Your task to perform on an android device: turn on airplane mode Image 0: 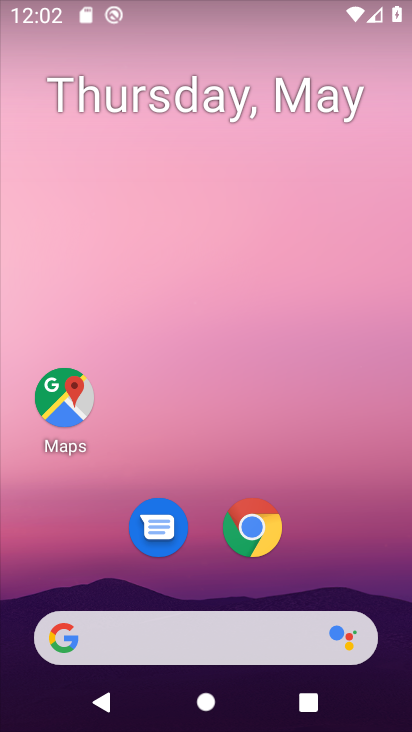
Step 0: drag from (355, 2) to (364, 514)
Your task to perform on an android device: turn on airplane mode Image 1: 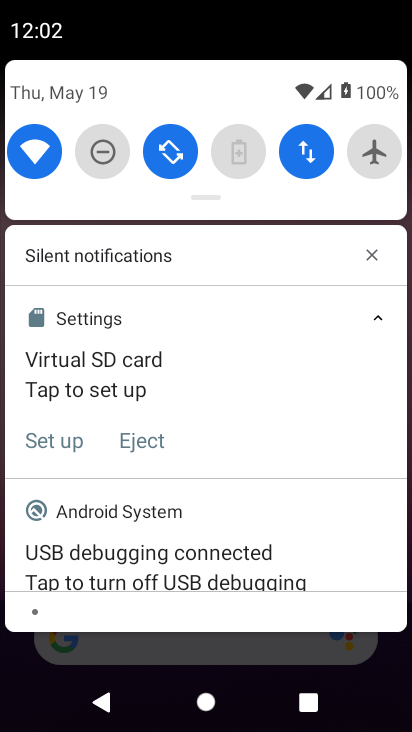
Step 1: click (383, 150)
Your task to perform on an android device: turn on airplane mode Image 2: 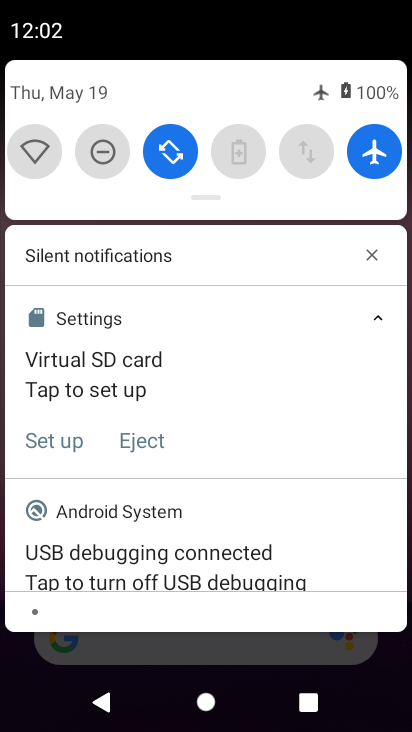
Step 2: task complete